Your task to perform on an android device: Open CNN.com Image 0: 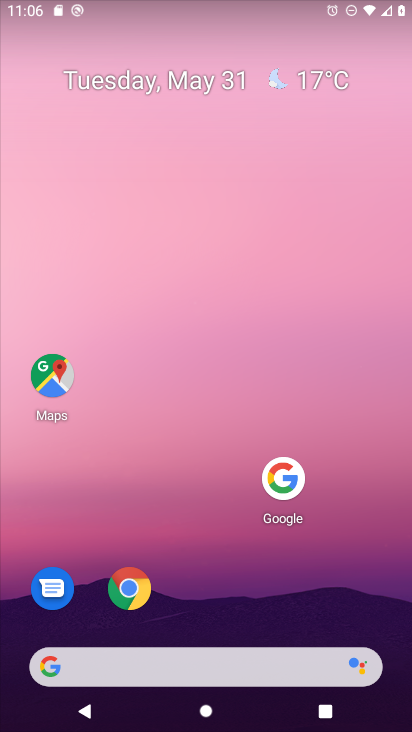
Step 0: press home button
Your task to perform on an android device: Open CNN.com Image 1: 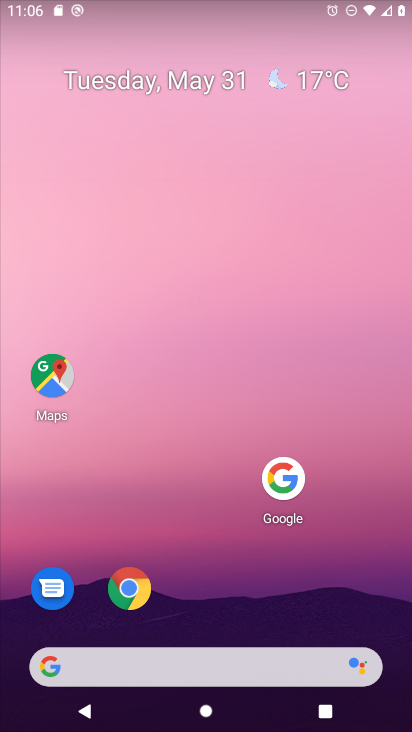
Step 1: click (131, 597)
Your task to perform on an android device: Open CNN.com Image 2: 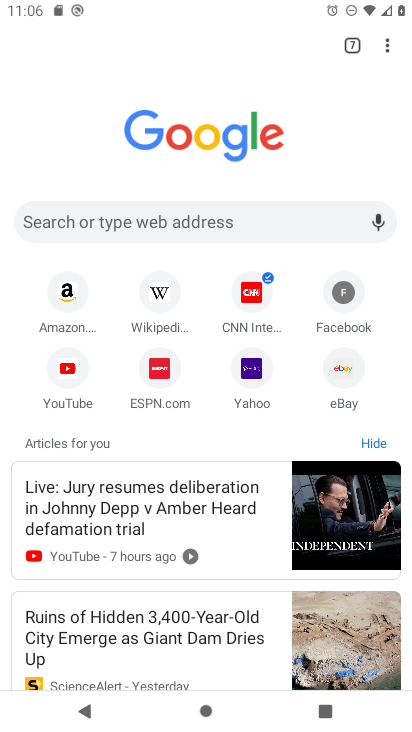
Step 2: click (124, 209)
Your task to perform on an android device: Open CNN.com Image 3: 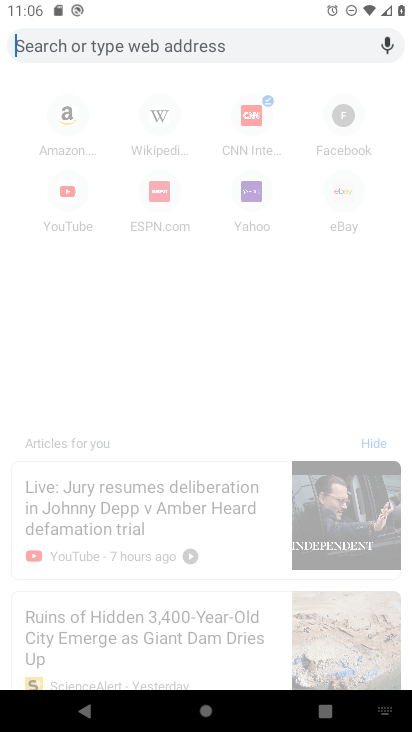
Step 3: type "cnn.com"
Your task to perform on an android device: Open CNN.com Image 4: 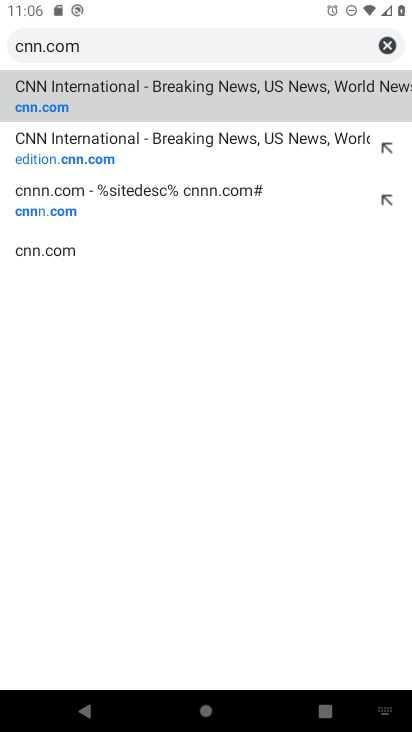
Step 4: click (160, 91)
Your task to perform on an android device: Open CNN.com Image 5: 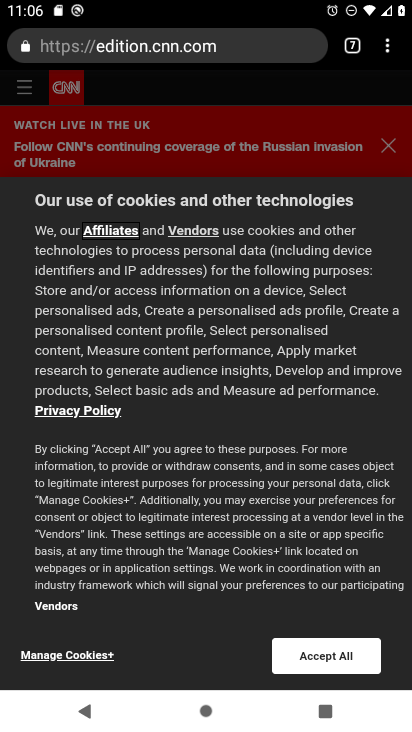
Step 5: click (327, 659)
Your task to perform on an android device: Open CNN.com Image 6: 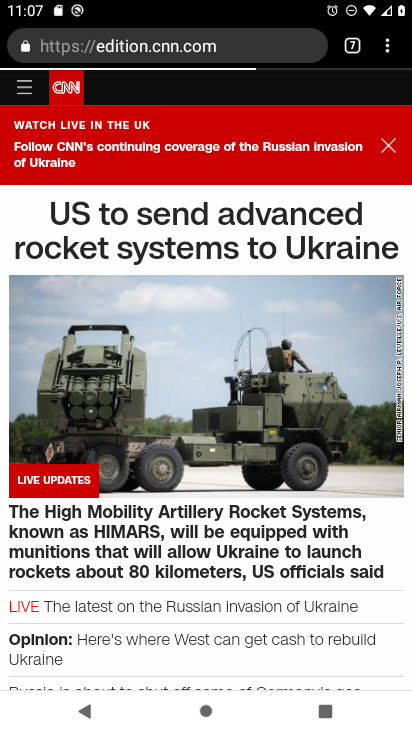
Step 6: task complete